Your task to perform on an android device: move an email to a new category in the gmail app Image 0: 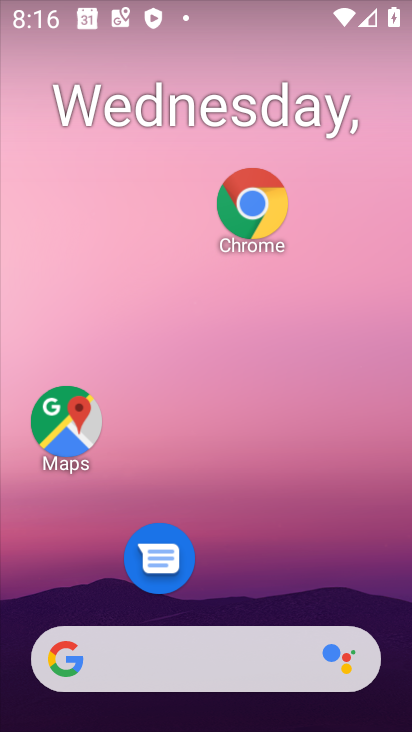
Step 0: drag from (231, 595) to (233, 87)
Your task to perform on an android device: move an email to a new category in the gmail app Image 1: 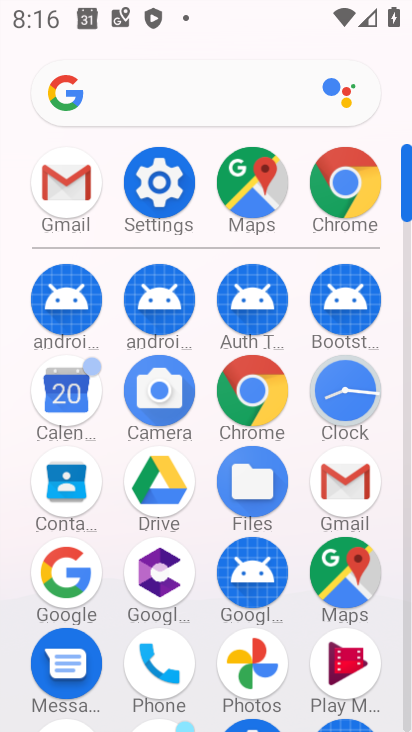
Step 1: click (65, 174)
Your task to perform on an android device: move an email to a new category in the gmail app Image 2: 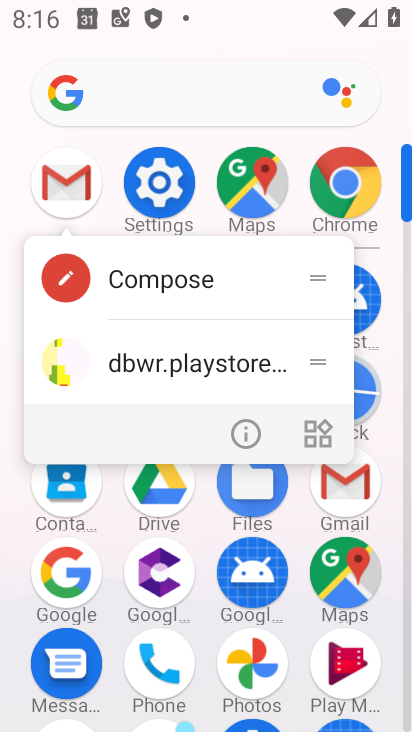
Step 2: click (64, 183)
Your task to perform on an android device: move an email to a new category in the gmail app Image 3: 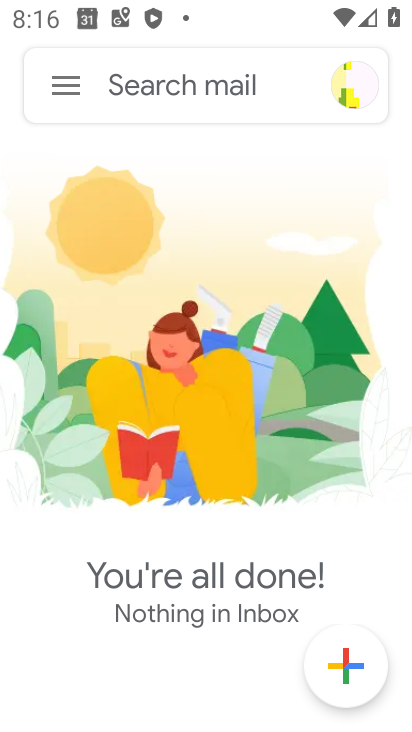
Step 3: click (70, 81)
Your task to perform on an android device: move an email to a new category in the gmail app Image 4: 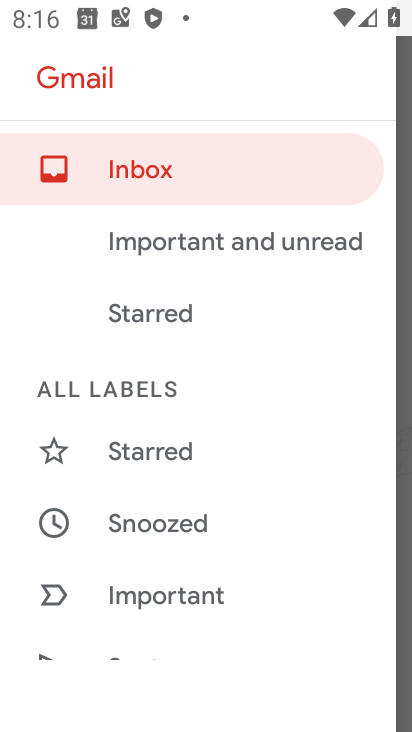
Step 4: drag from (173, 613) to (172, 126)
Your task to perform on an android device: move an email to a new category in the gmail app Image 5: 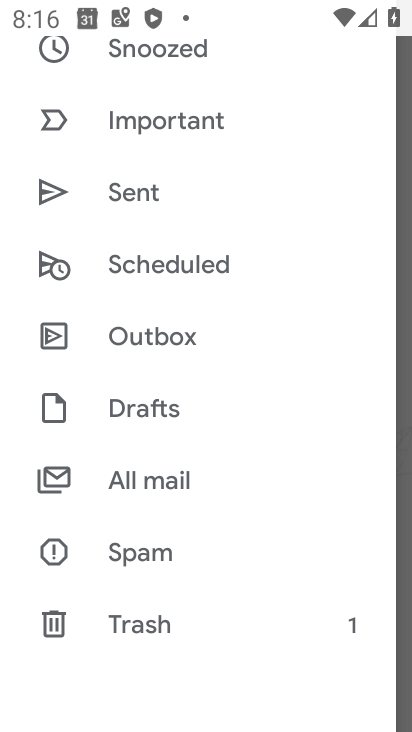
Step 5: click (146, 481)
Your task to perform on an android device: move an email to a new category in the gmail app Image 6: 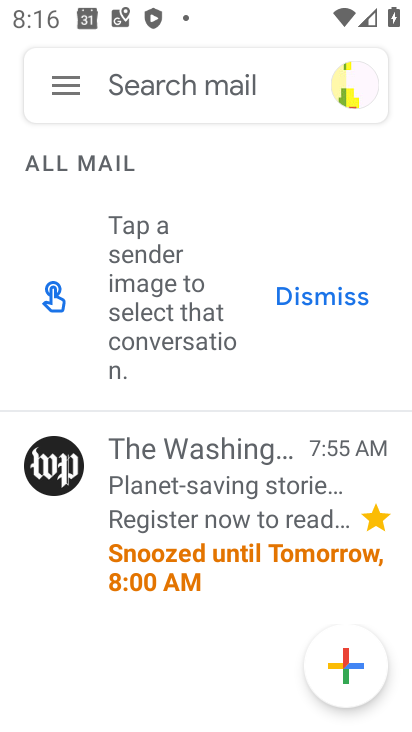
Step 6: click (61, 475)
Your task to perform on an android device: move an email to a new category in the gmail app Image 7: 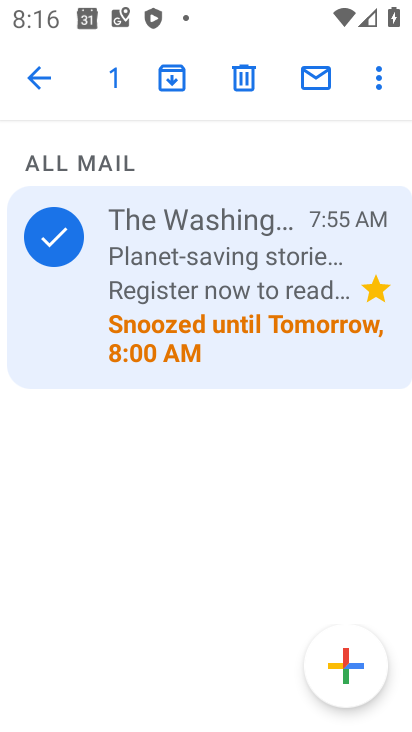
Step 7: click (374, 76)
Your task to perform on an android device: move an email to a new category in the gmail app Image 8: 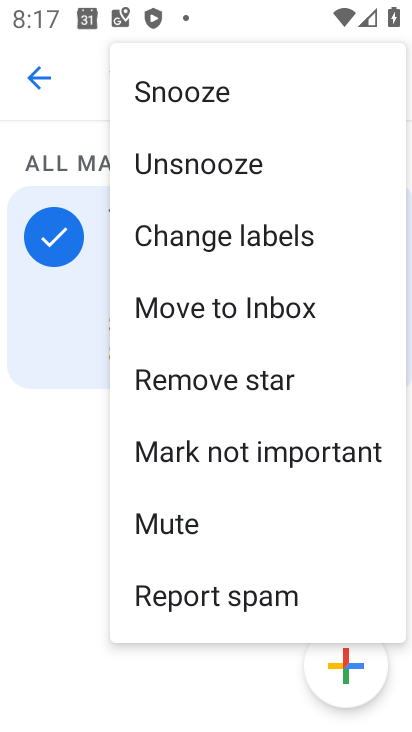
Step 8: click (220, 299)
Your task to perform on an android device: move an email to a new category in the gmail app Image 9: 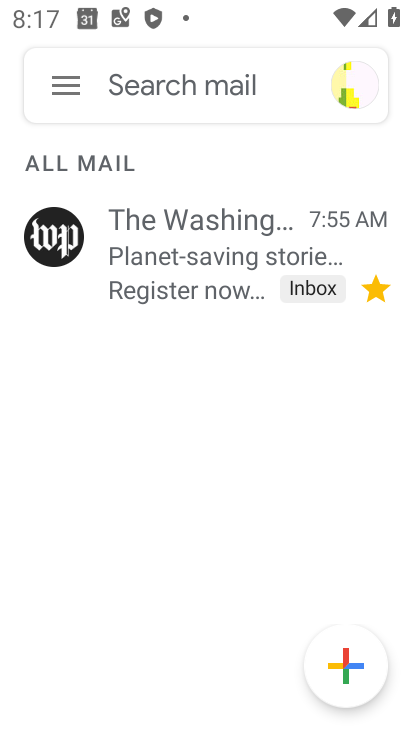
Step 9: task complete